Your task to perform on an android device: Find coffee shops on Maps Image 0: 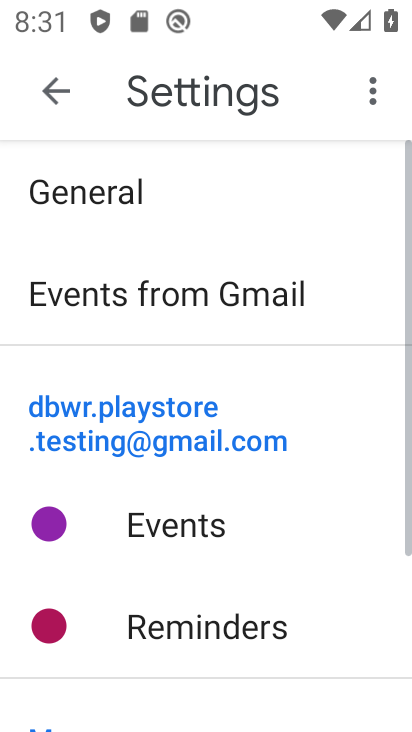
Step 0: press home button
Your task to perform on an android device: Find coffee shops on Maps Image 1: 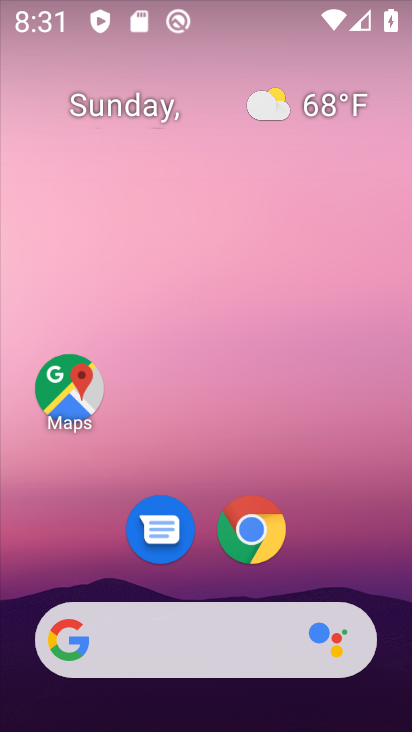
Step 1: click (67, 385)
Your task to perform on an android device: Find coffee shops on Maps Image 2: 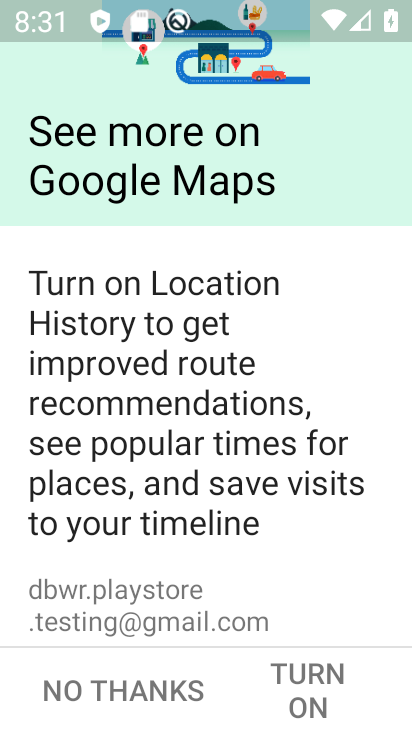
Step 2: drag from (253, 595) to (261, 151)
Your task to perform on an android device: Find coffee shops on Maps Image 3: 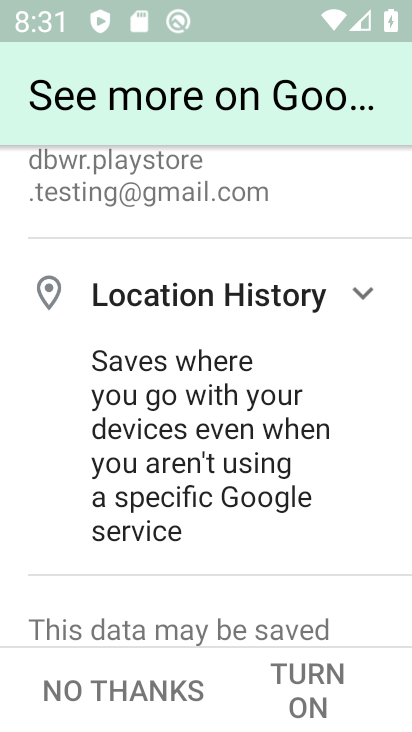
Step 3: drag from (248, 598) to (258, 103)
Your task to perform on an android device: Find coffee shops on Maps Image 4: 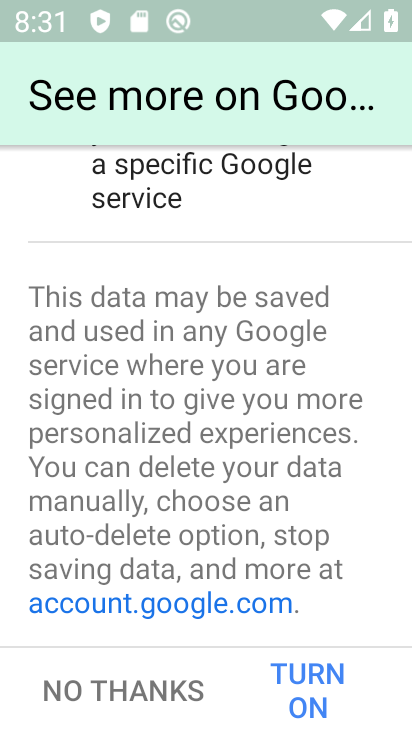
Step 4: click (294, 689)
Your task to perform on an android device: Find coffee shops on Maps Image 5: 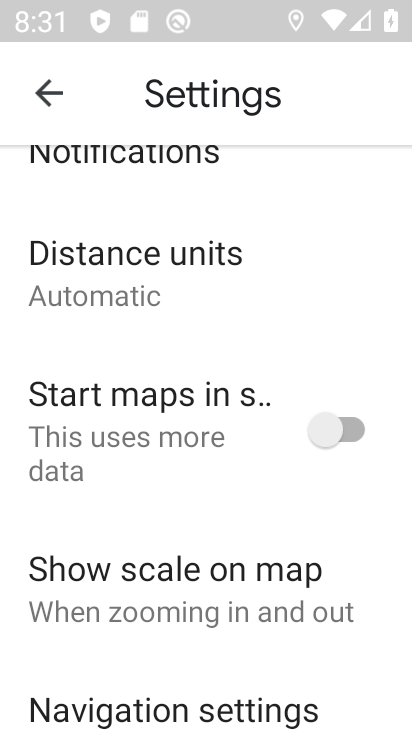
Step 5: click (41, 94)
Your task to perform on an android device: Find coffee shops on Maps Image 6: 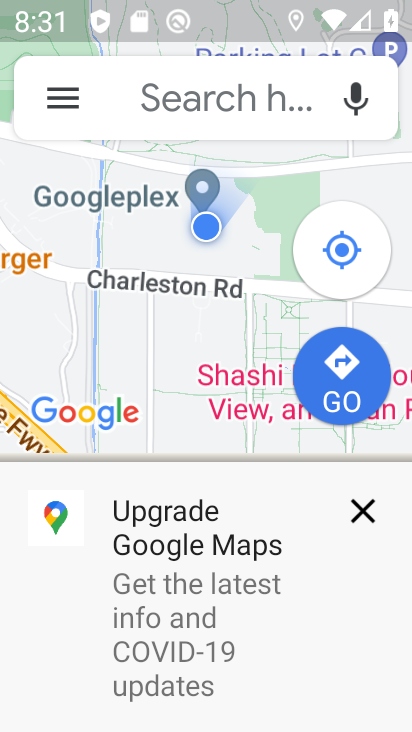
Step 6: click (185, 98)
Your task to perform on an android device: Find coffee shops on Maps Image 7: 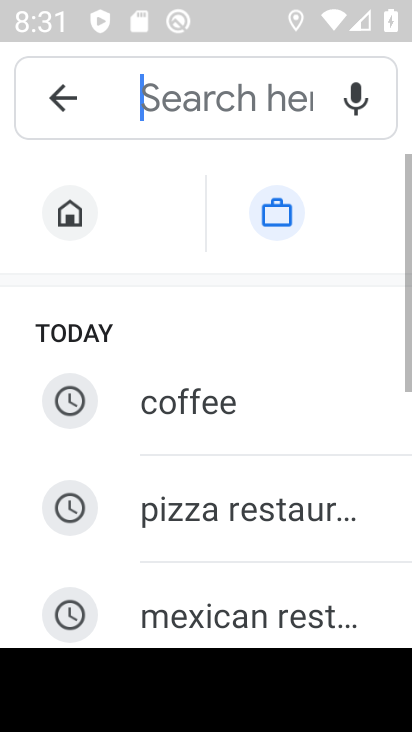
Step 7: click (210, 406)
Your task to perform on an android device: Find coffee shops on Maps Image 8: 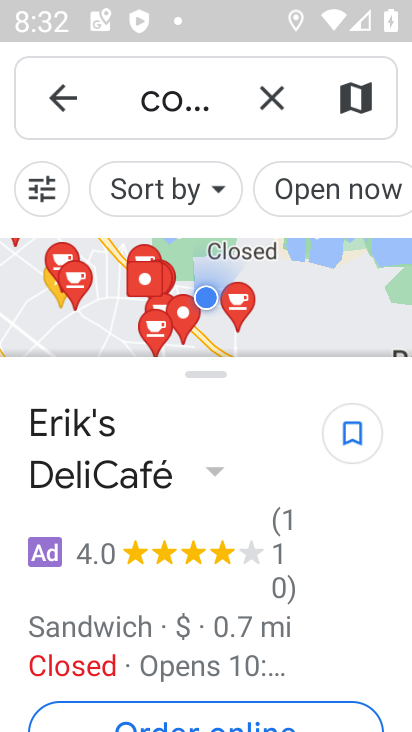
Step 8: task complete